Your task to perform on an android device: Show the shopping cart on walmart.com. Search for corsair k70 on walmart.com, select the first entry, and add it to the cart. Image 0: 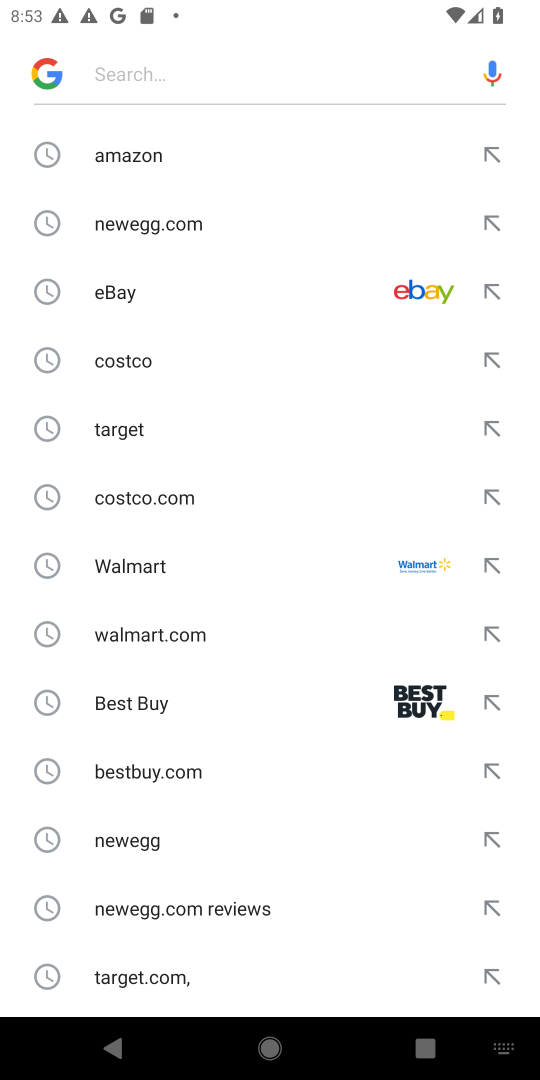
Step 0: press home button
Your task to perform on an android device: Show the shopping cart on walmart.com. Search for corsair k70 on walmart.com, select the first entry, and add it to the cart. Image 1: 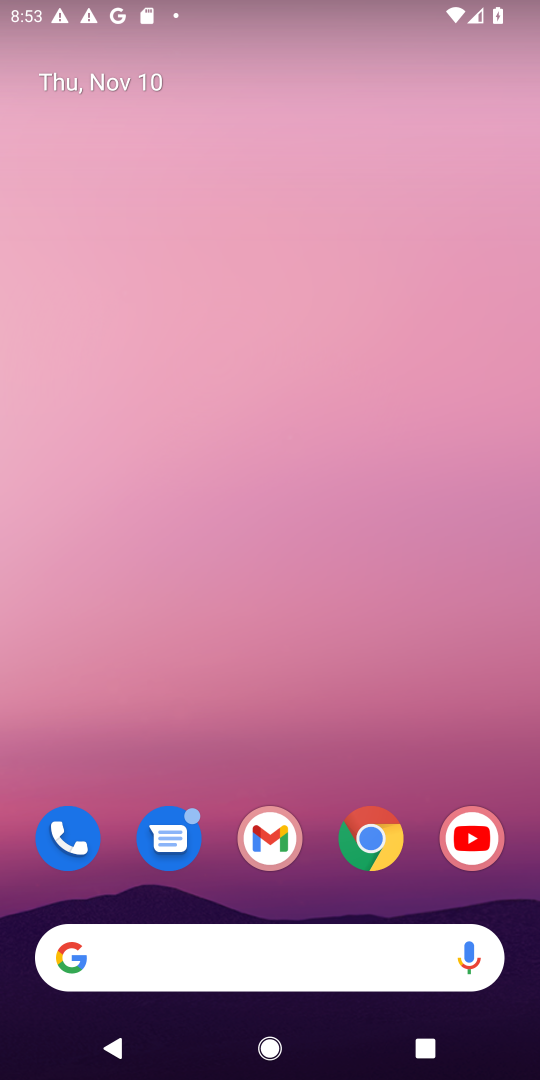
Step 1: drag from (328, 918) to (340, 119)
Your task to perform on an android device: Show the shopping cart on walmart.com. Search for corsair k70 on walmart.com, select the first entry, and add it to the cart. Image 2: 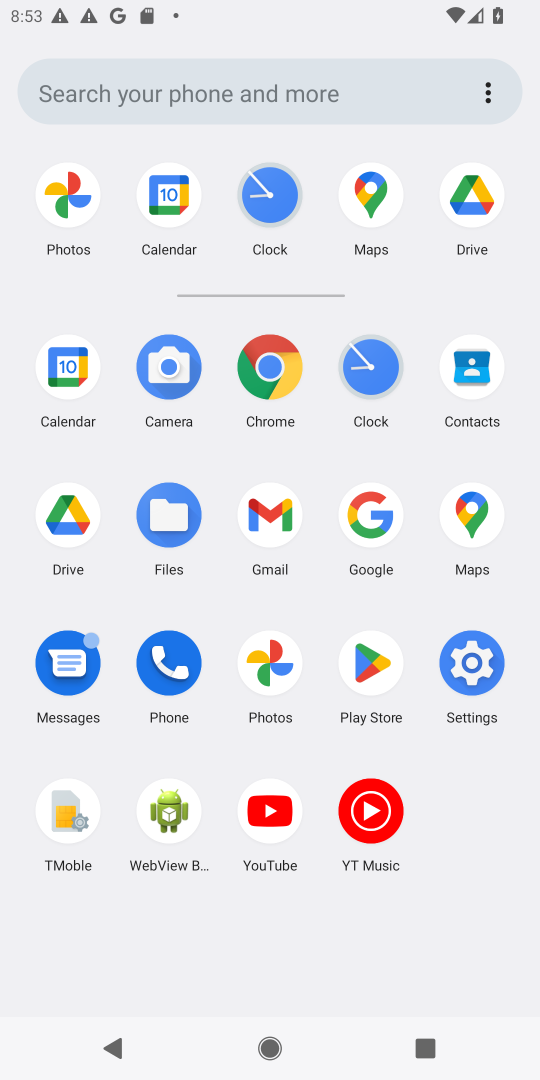
Step 2: click (266, 370)
Your task to perform on an android device: Show the shopping cart on walmart.com. Search for corsair k70 on walmart.com, select the first entry, and add it to the cart. Image 3: 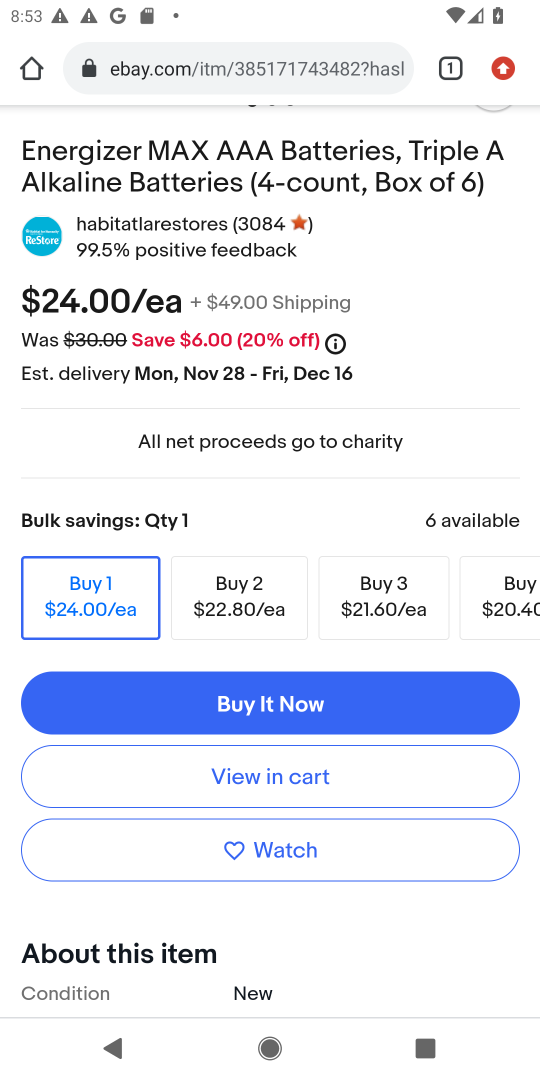
Step 3: click (370, 81)
Your task to perform on an android device: Show the shopping cart on walmart.com. Search for corsair k70 on walmart.com, select the first entry, and add it to the cart. Image 4: 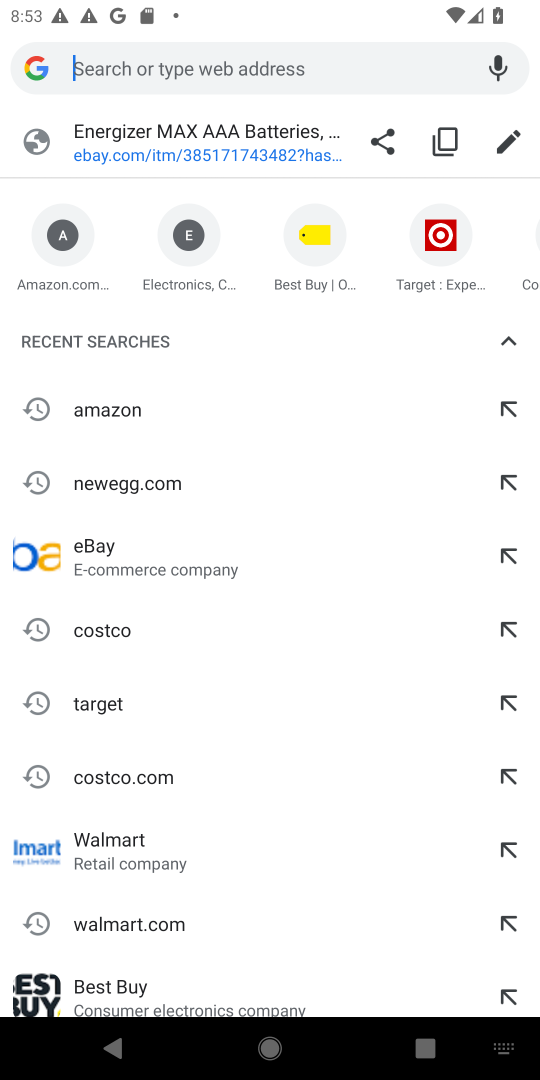
Step 4: type "walmart.com"
Your task to perform on an android device: Show the shopping cart on walmart.com. Search for corsair k70 on walmart.com, select the first entry, and add it to the cart. Image 5: 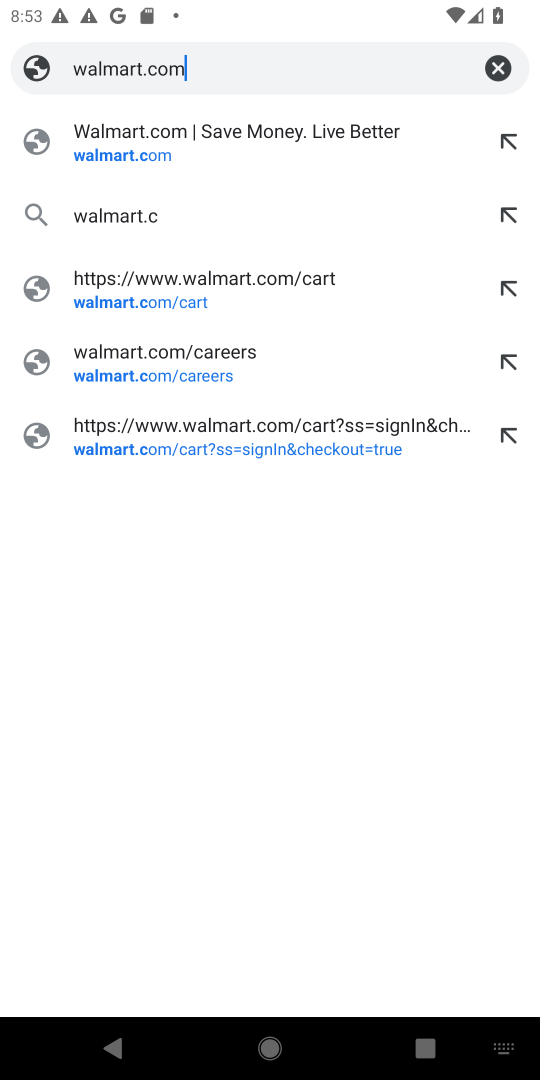
Step 5: press enter
Your task to perform on an android device: Show the shopping cart on walmart.com. Search for corsair k70 on walmart.com, select the first entry, and add it to the cart. Image 6: 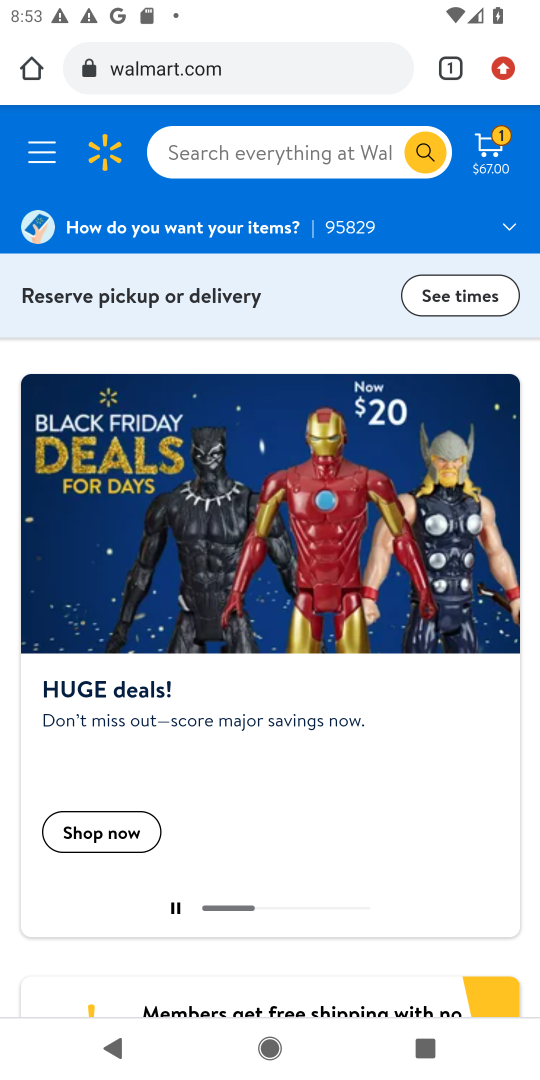
Step 6: click (501, 154)
Your task to perform on an android device: Show the shopping cart on walmart.com. Search for corsair k70 on walmart.com, select the first entry, and add it to the cart. Image 7: 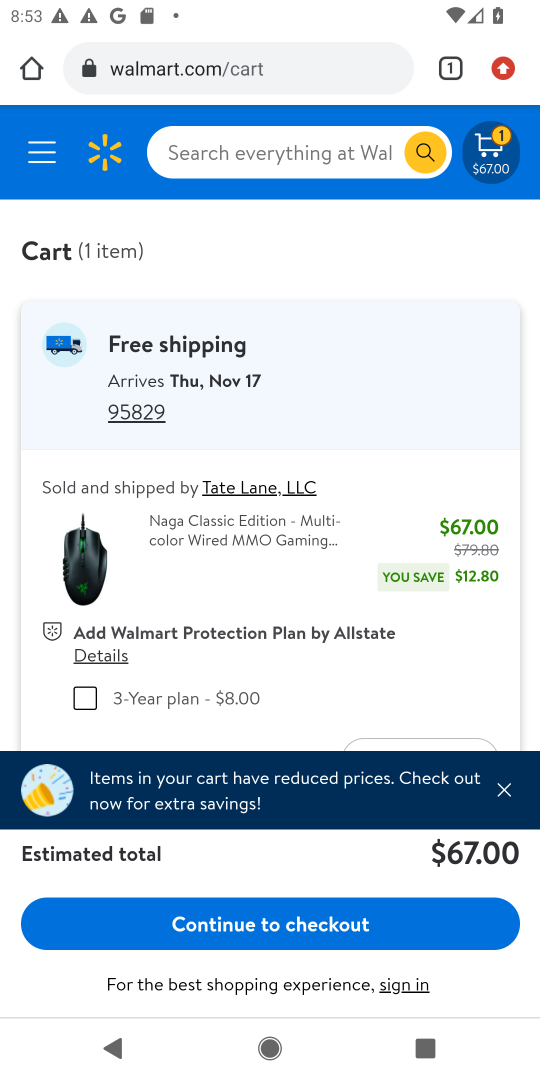
Step 7: drag from (260, 683) to (268, 381)
Your task to perform on an android device: Show the shopping cart on walmart.com. Search for corsair k70 on walmart.com, select the first entry, and add it to the cart. Image 8: 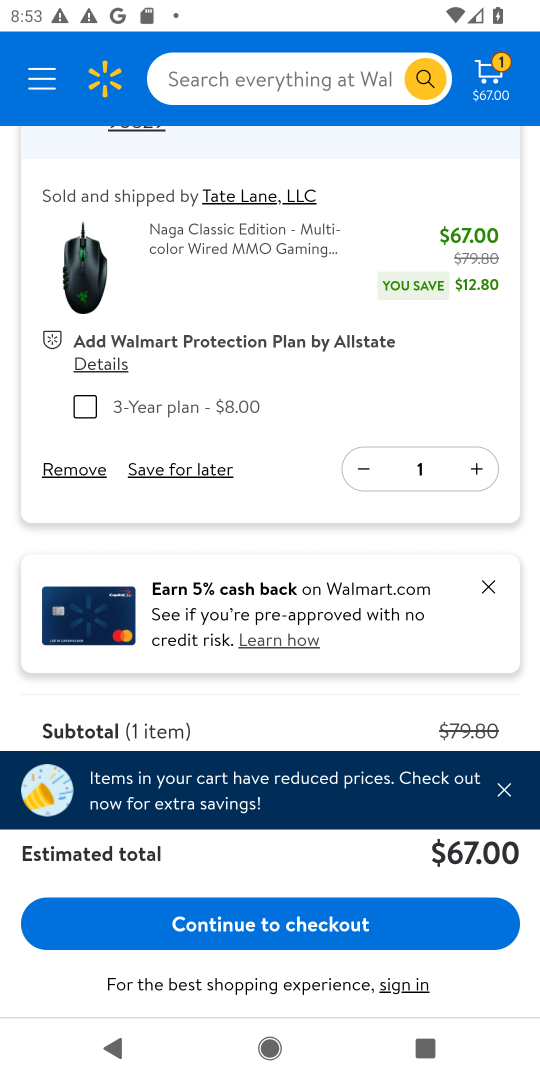
Step 8: click (73, 465)
Your task to perform on an android device: Show the shopping cart on walmart.com. Search for corsair k70 on walmart.com, select the first entry, and add it to the cart. Image 9: 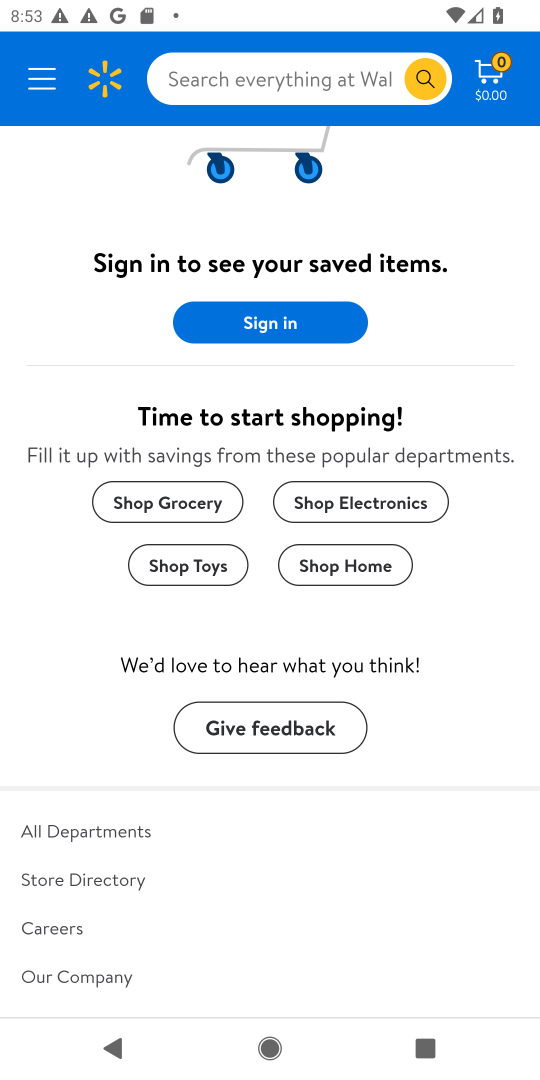
Step 9: click (304, 78)
Your task to perform on an android device: Show the shopping cart on walmart.com. Search for corsair k70 on walmart.com, select the first entry, and add it to the cart. Image 10: 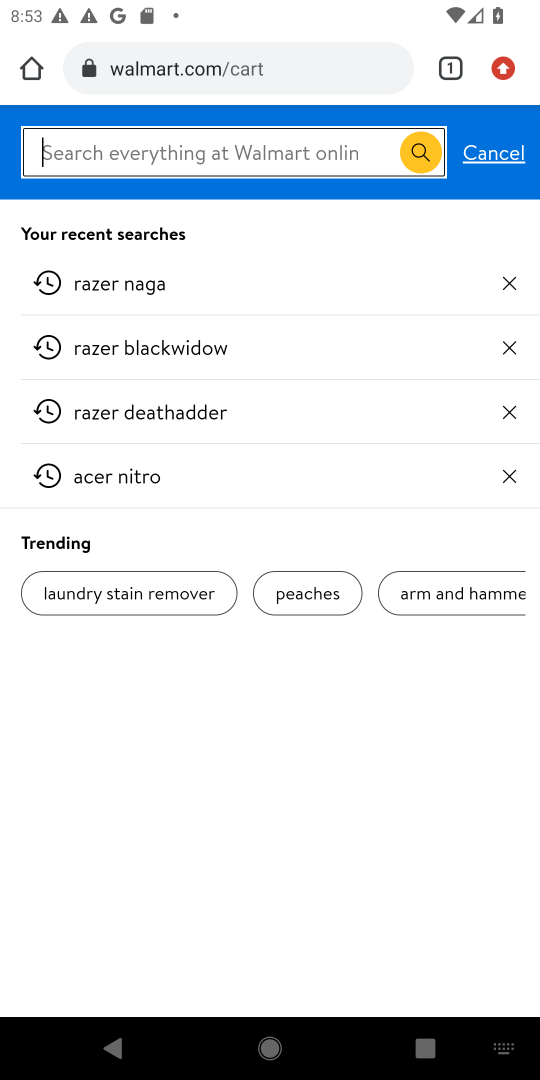
Step 10: type "corsair k70"
Your task to perform on an android device: Show the shopping cart on walmart.com. Search for corsair k70 on walmart.com, select the first entry, and add it to the cart. Image 11: 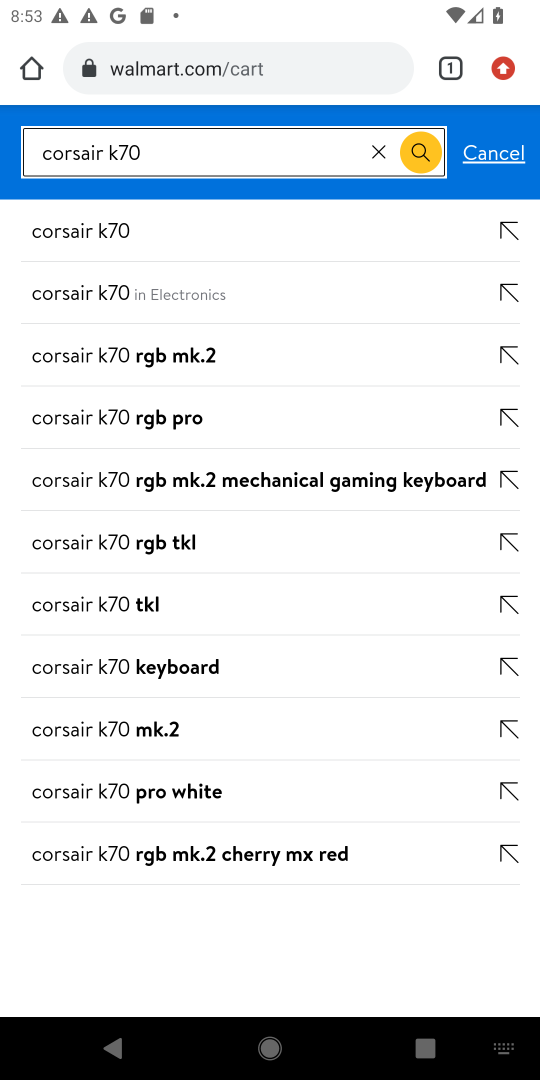
Step 11: press enter
Your task to perform on an android device: Show the shopping cart on walmart.com. Search for corsair k70 on walmart.com, select the first entry, and add it to the cart. Image 12: 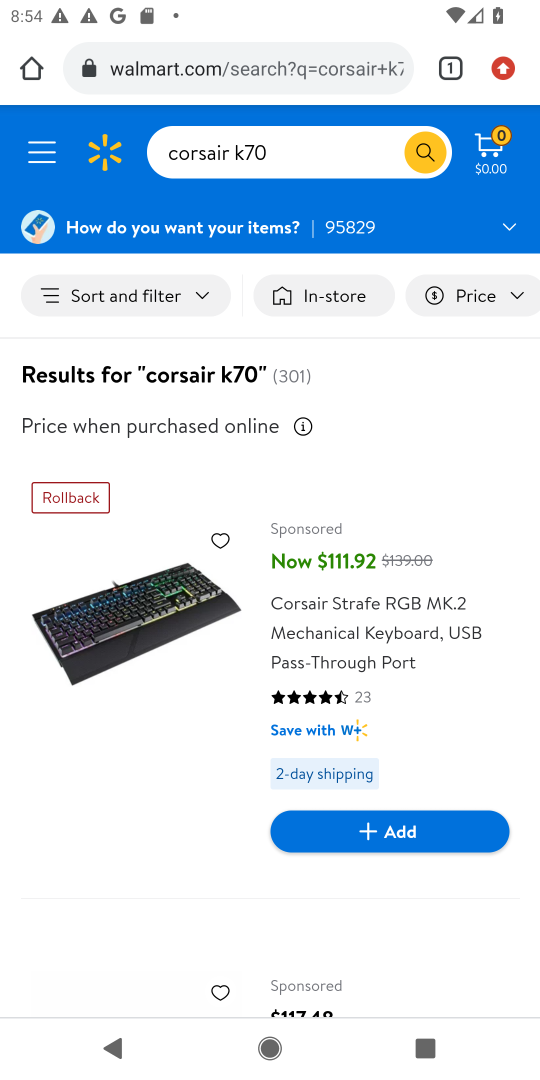
Step 12: drag from (155, 799) to (196, 151)
Your task to perform on an android device: Show the shopping cart on walmart.com. Search for corsair k70 on walmart.com, select the first entry, and add it to the cart. Image 13: 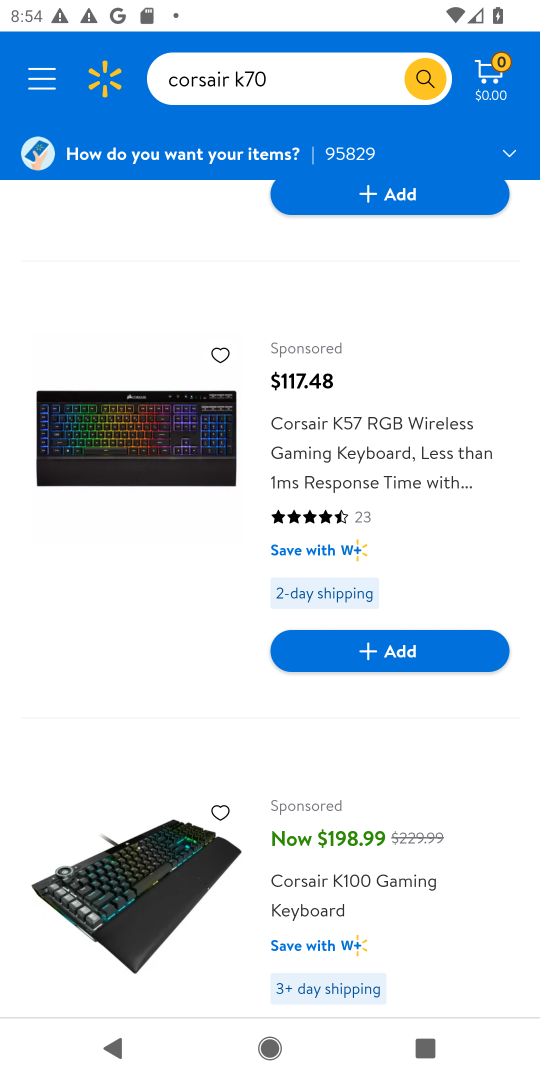
Step 13: drag from (319, 705) to (337, 135)
Your task to perform on an android device: Show the shopping cart on walmart.com. Search for corsair k70 on walmart.com, select the first entry, and add it to the cart. Image 14: 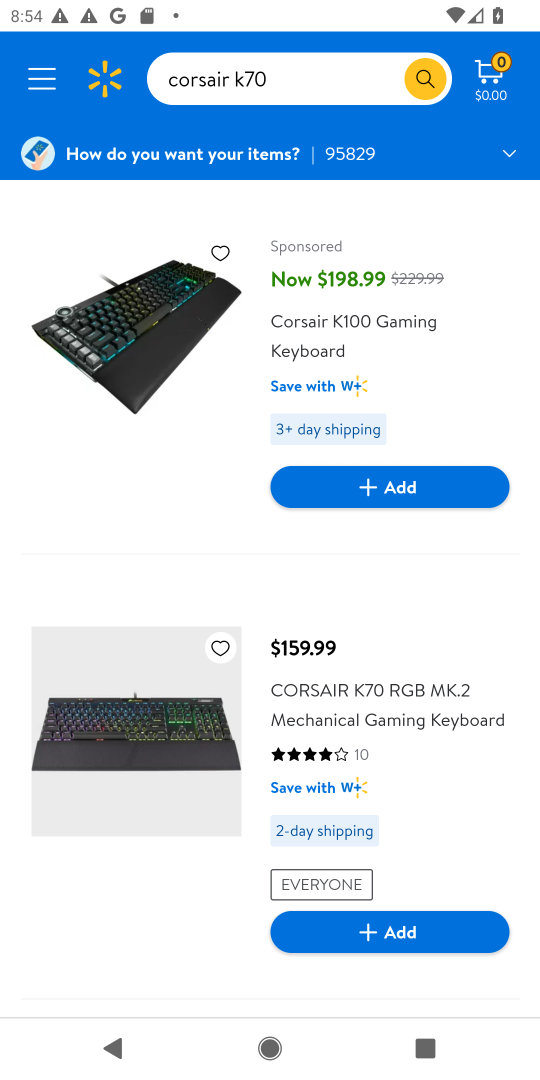
Step 14: click (435, 936)
Your task to perform on an android device: Show the shopping cart on walmart.com. Search for corsair k70 on walmart.com, select the first entry, and add it to the cart. Image 15: 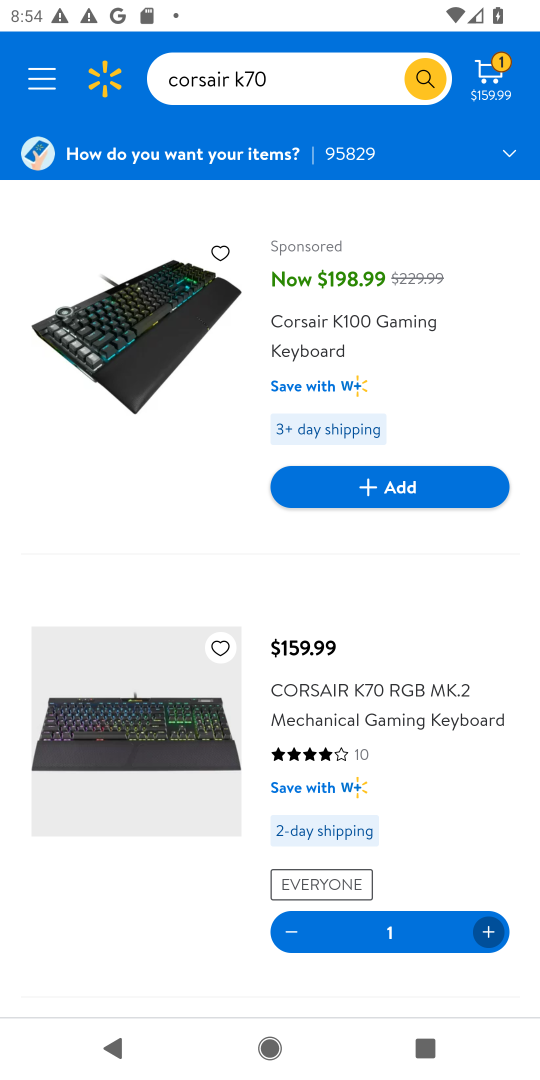
Step 15: click (484, 62)
Your task to perform on an android device: Show the shopping cart on walmart.com. Search for corsair k70 on walmart.com, select the first entry, and add it to the cart. Image 16: 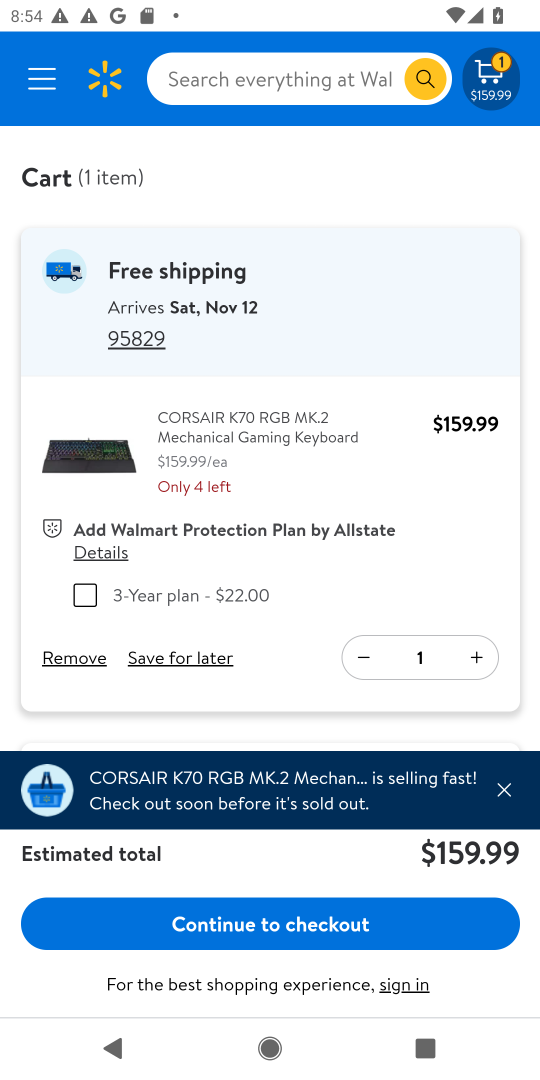
Step 16: task complete